Your task to perform on an android device: toggle show notifications on the lock screen Image 0: 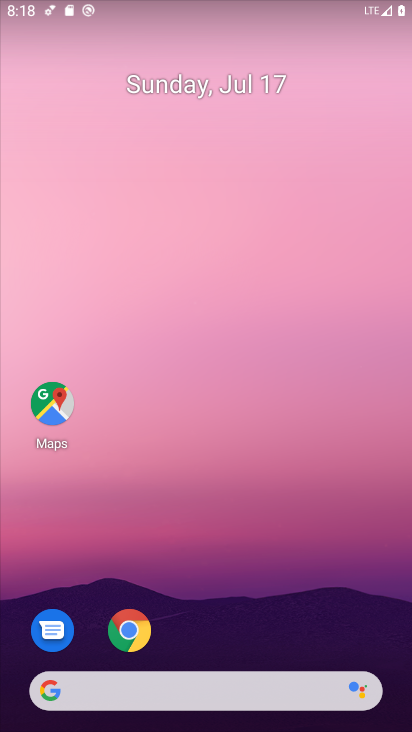
Step 0: drag from (255, 663) to (303, 87)
Your task to perform on an android device: toggle show notifications on the lock screen Image 1: 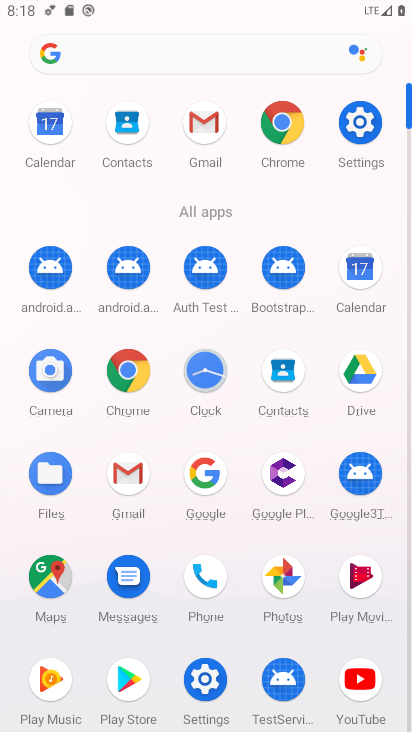
Step 1: click (208, 681)
Your task to perform on an android device: toggle show notifications on the lock screen Image 2: 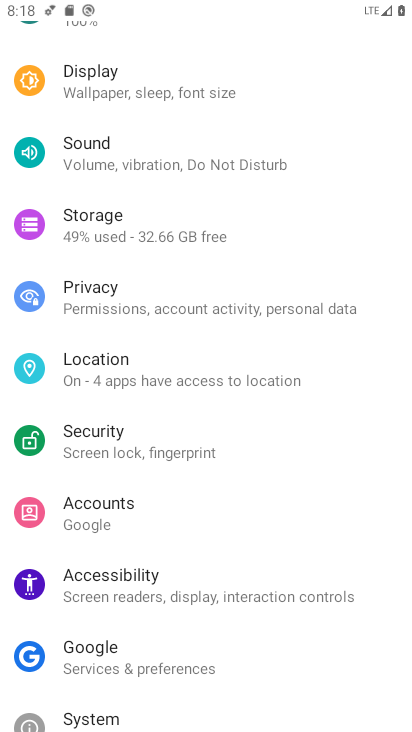
Step 2: drag from (137, 144) to (66, 621)
Your task to perform on an android device: toggle show notifications on the lock screen Image 3: 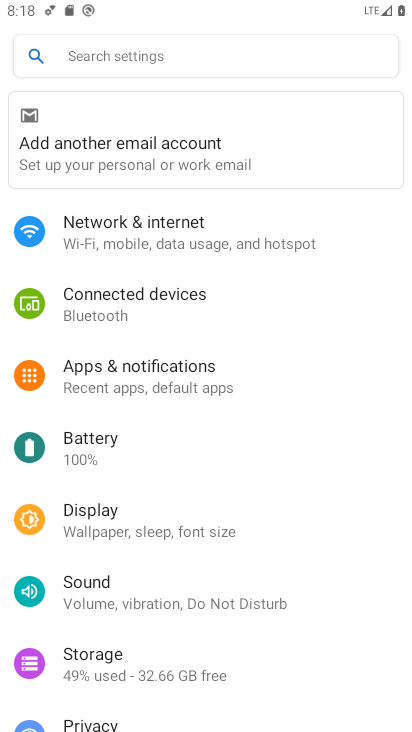
Step 3: click (168, 383)
Your task to perform on an android device: toggle show notifications on the lock screen Image 4: 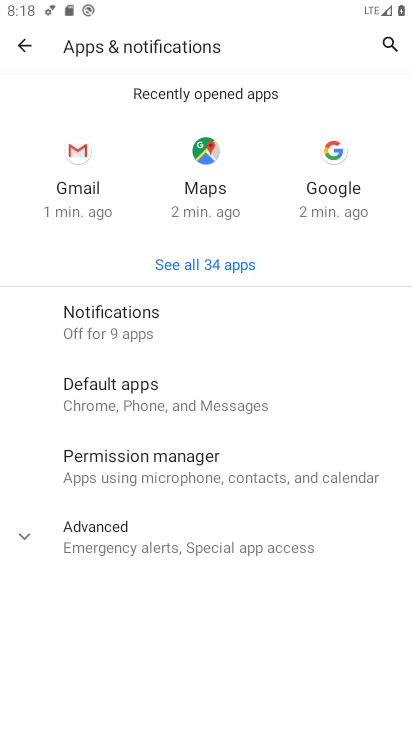
Step 4: click (131, 328)
Your task to perform on an android device: toggle show notifications on the lock screen Image 5: 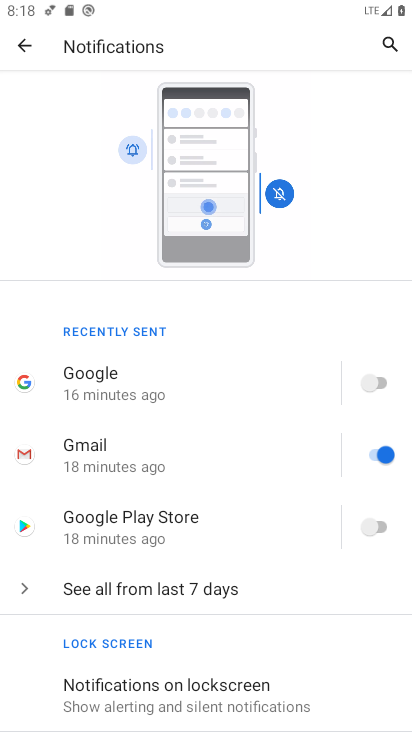
Step 5: drag from (176, 509) to (202, 295)
Your task to perform on an android device: toggle show notifications on the lock screen Image 6: 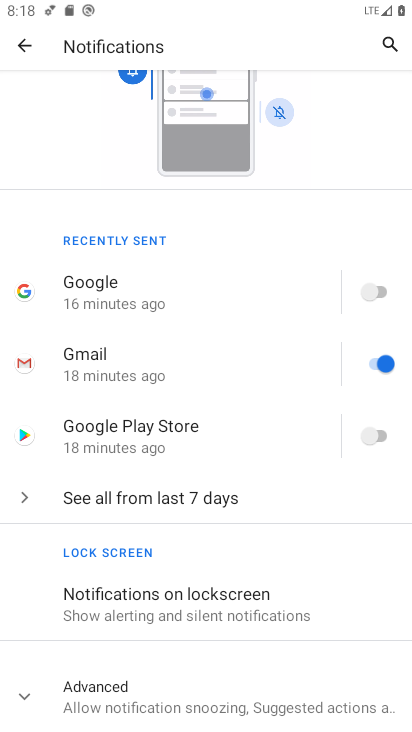
Step 6: click (175, 615)
Your task to perform on an android device: toggle show notifications on the lock screen Image 7: 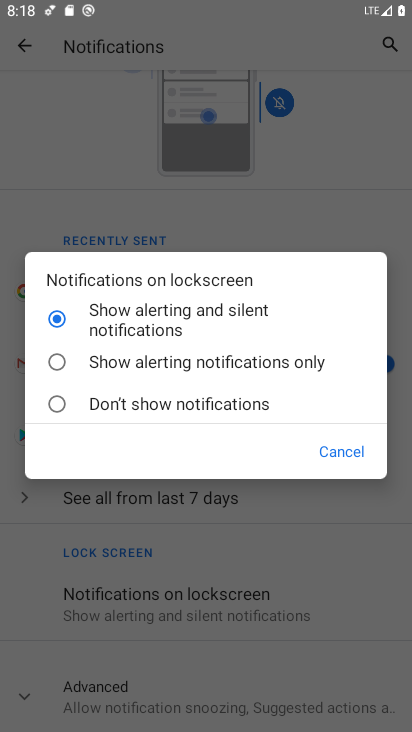
Step 7: click (100, 408)
Your task to perform on an android device: toggle show notifications on the lock screen Image 8: 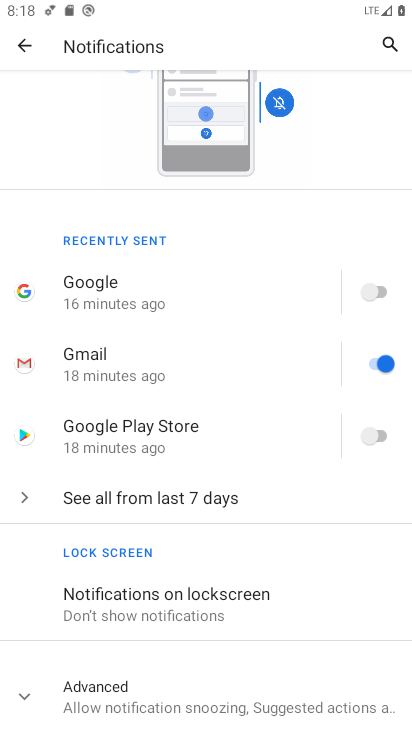
Step 8: task complete